Your task to perform on an android device: delete a single message in the gmail app Image 0: 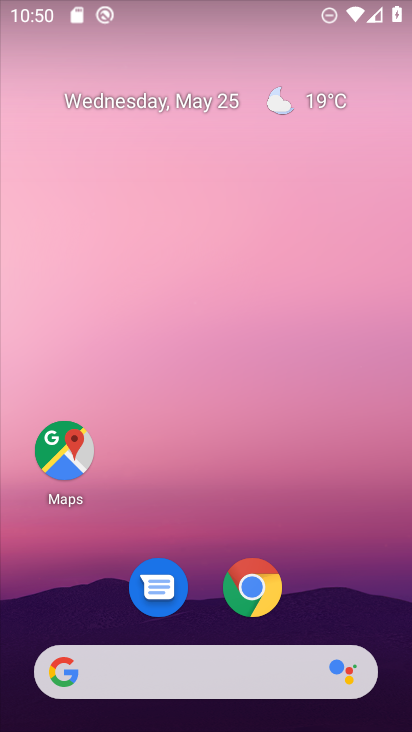
Step 0: drag from (389, 618) to (333, 90)
Your task to perform on an android device: delete a single message in the gmail app Image 1: 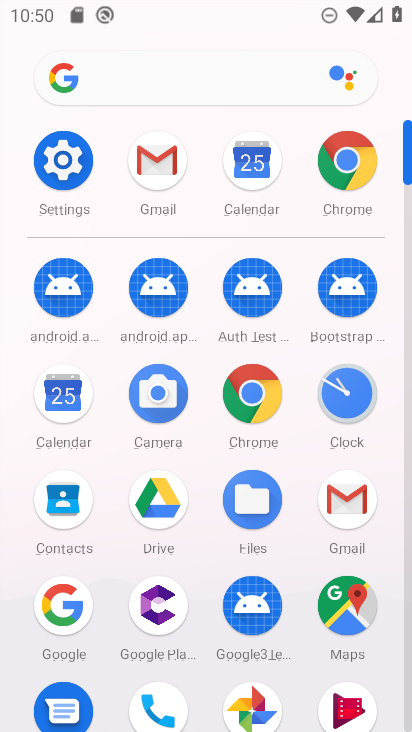
Step 1: click (403, 711)
Your task to perform on an android device: delete a single message in the gmail app Image 2: 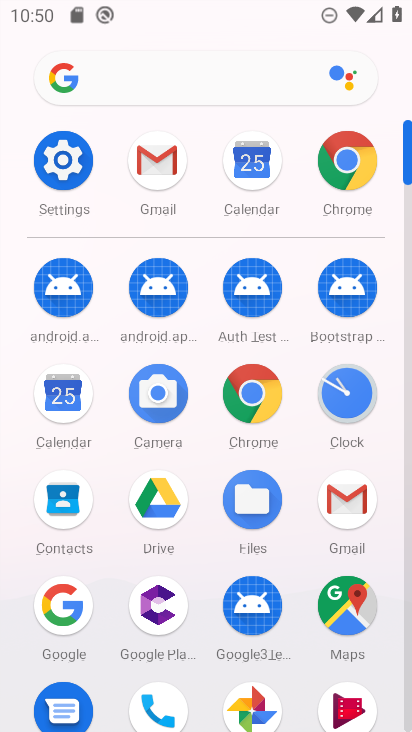
Step 2: click (346, 500)
Your task to perform on an android device: delete a single message in the gmail app Image 3: 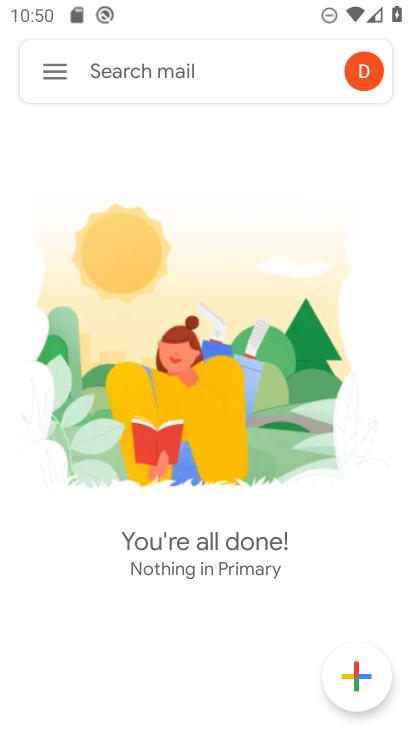
Step 3: click (51, 73)
Your task to perform on an android device: delete a single message in the gmail app Image 4: 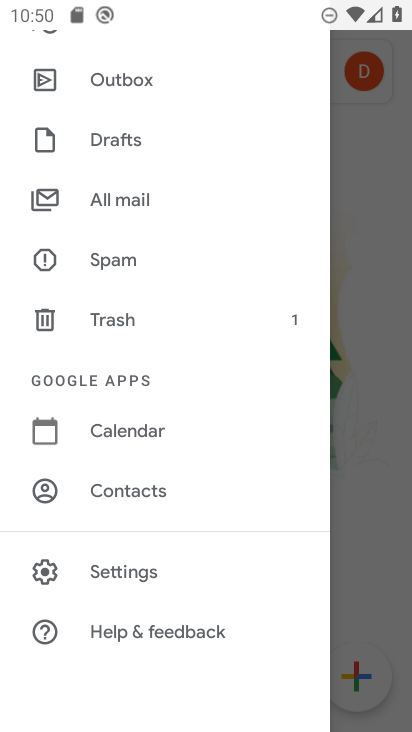
Step 4: click (125, 576)
Your task to perform on an android device: delete a single message in the gmail app Image 5: 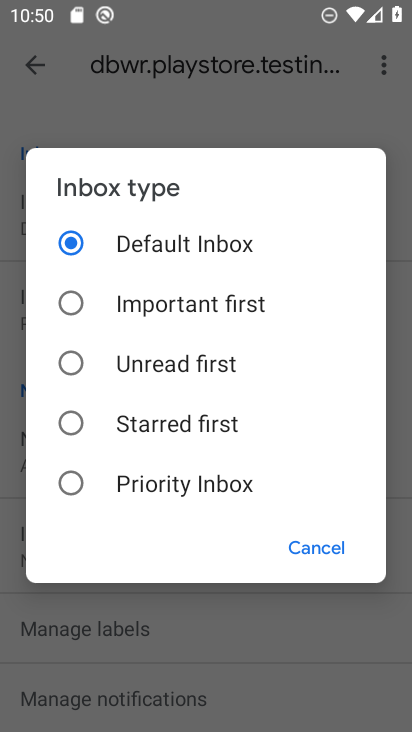
Step 5: click (328, 552)
Your task to perform on an android device: delete a single message in the gmail app Image 6: 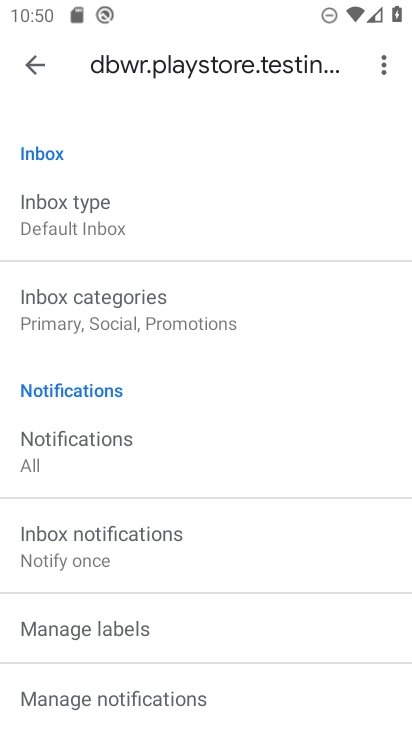
Step 6: press back button
Your task to perform on an android device: delete a single message in the gmail app Image 7: 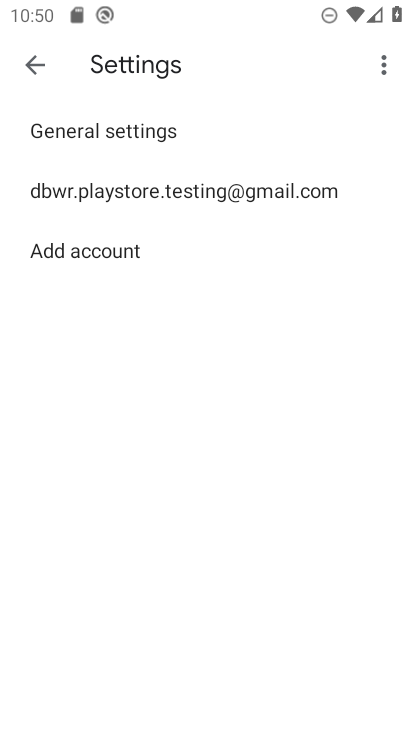
Step 7: press back button
Your task to perform on an android device: delete a single message in the gmail app Image 8: 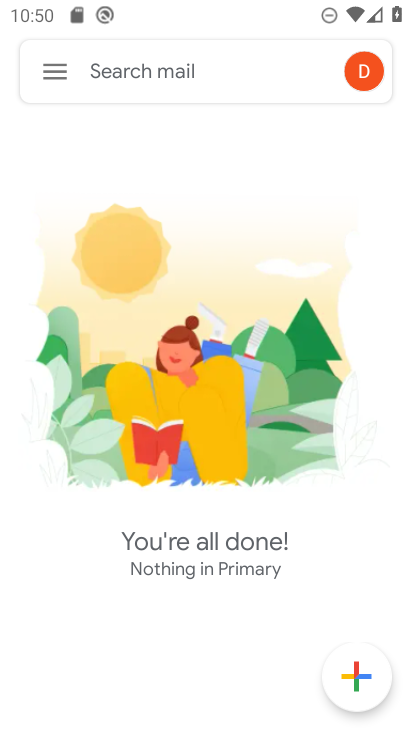
Step 8: click (49, 70)
Your task to perform on an android device: delete a single message in the gmail app Image 9: 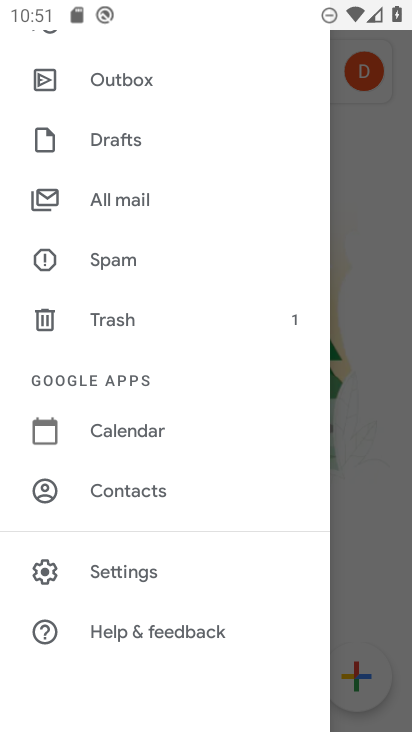
Step 9: drag from (208, 306) to (202, 444)
Your task to perform on an android device: delete a single message in the gmail app Image 10: 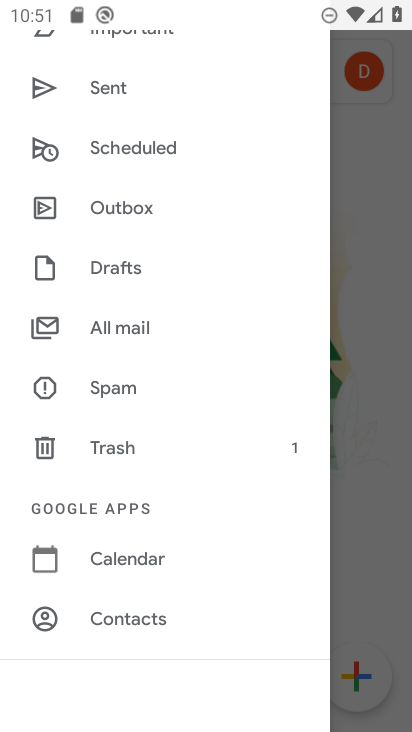
Step 10: click (107, 328)
Your task to perform on an android device: delete a single message in the gmail app Image 11: 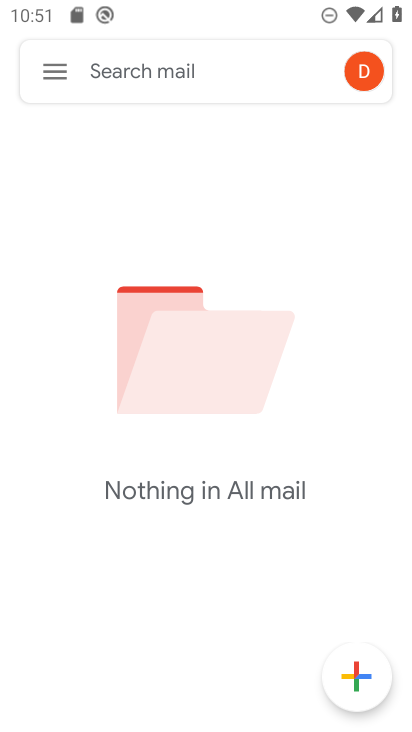
Step 11: task complete